Your task to perform on an android device: turn pop-ups on in chrome Image 0: 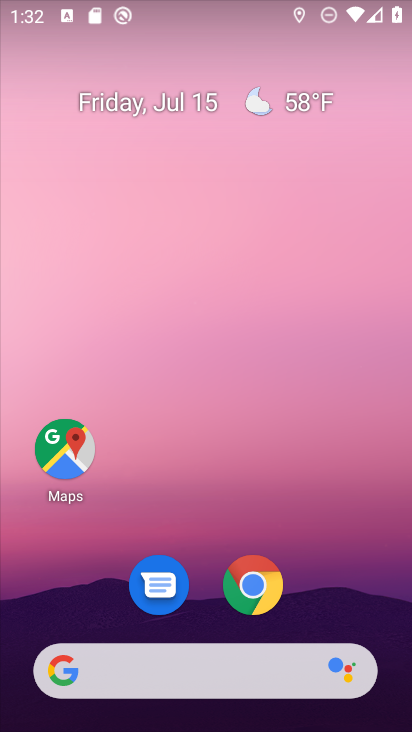
Step 0: click (270, 585)
Your task to perform on an android device: turn pop-ups on in chrome Image 1: 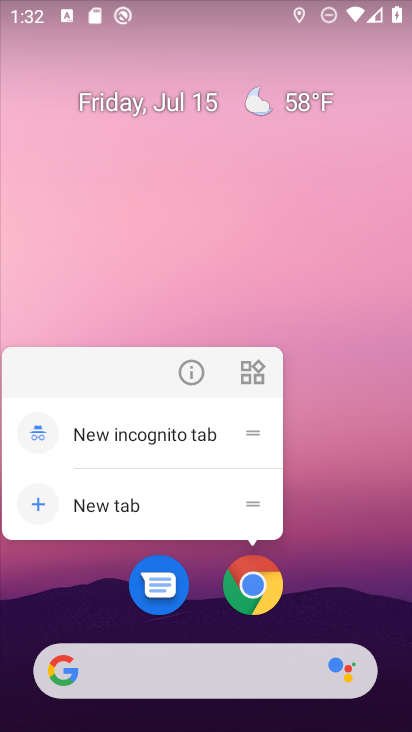
Step 1: click (273, 577)
Your task to perform on an android device: turn pop-ups on in chrome Image 2: 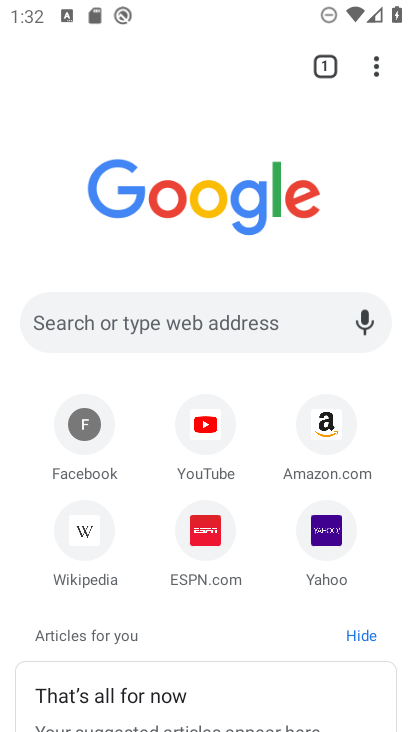
Step 2: click (369, 68)
Your task to perform on an android device: turn pop-ups on in chrome Image 3: 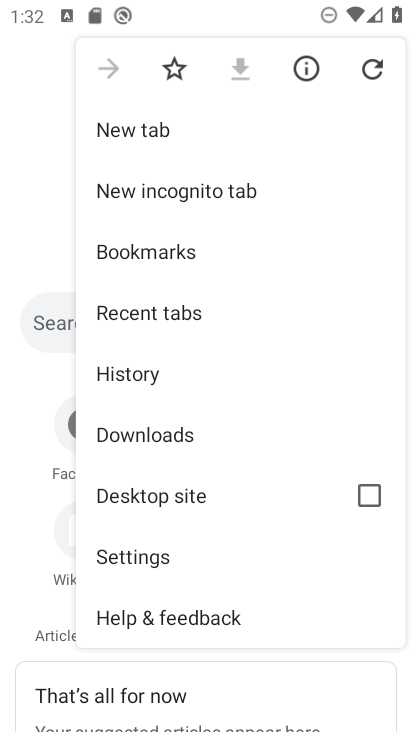
Step 3: click (160, 555)
Your task to perform on an android device: turn pop-ups on in chrome Image 4: 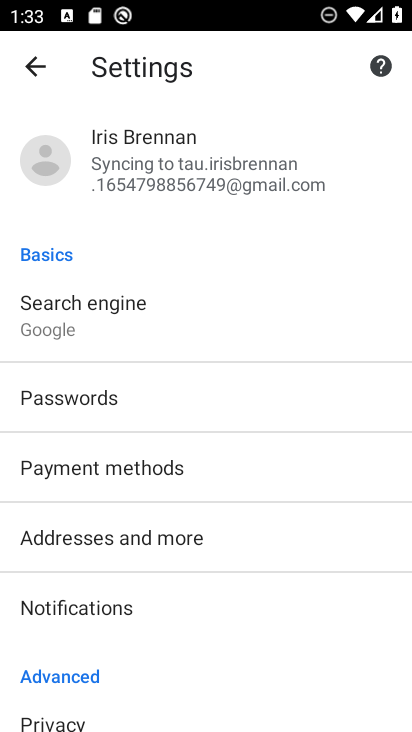
Step 4: drag from (190, 593) to (255, 306)
Your task to perform on an android device: turn pop-ups on in chrome Image 5: 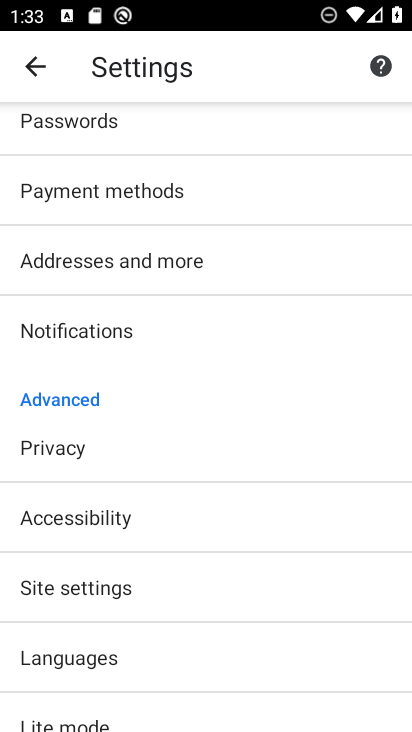
Step 5: click (135, 581)
Your task to perform on an android device: turn pop-ups on in chrome Image 6: 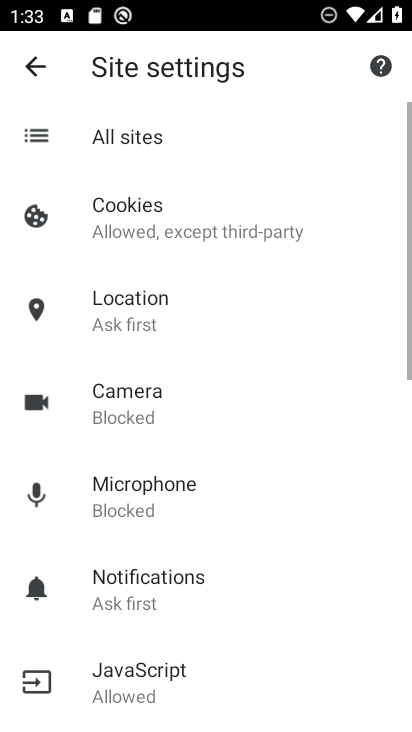
Step 6: drag from (231, 554) to (270, 419)
Your task to perform on an android device: turn pop-ups on in chrome Image 7: 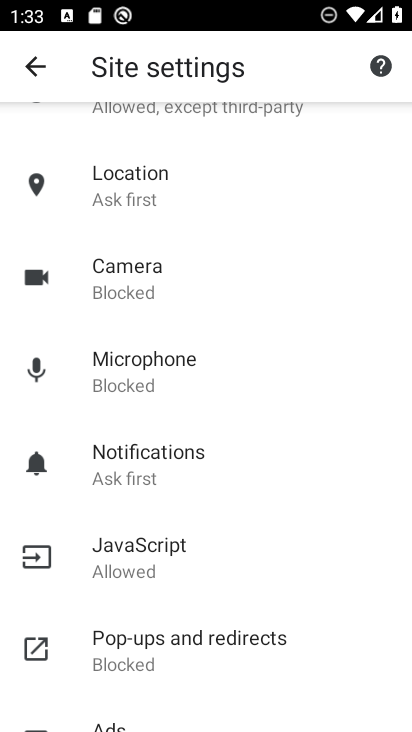
Step 7: click (252, 646)
Your task to perform on an android device: turn pop-ups on in chrome Image 8: 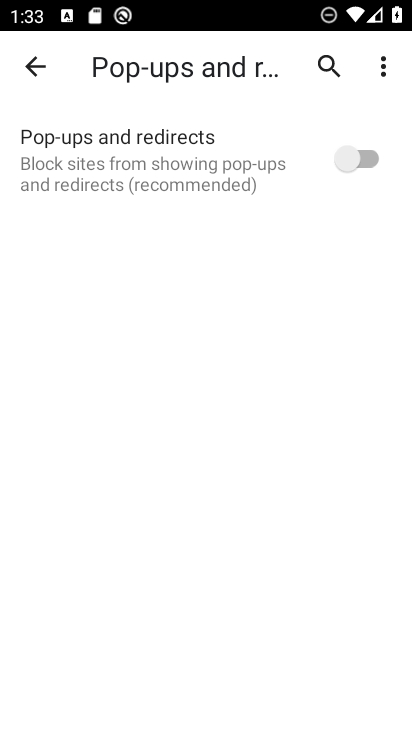
Step 8: click (355, 149)
Your task to perform on an android device: turn pop-ups on in chrome Image 9: 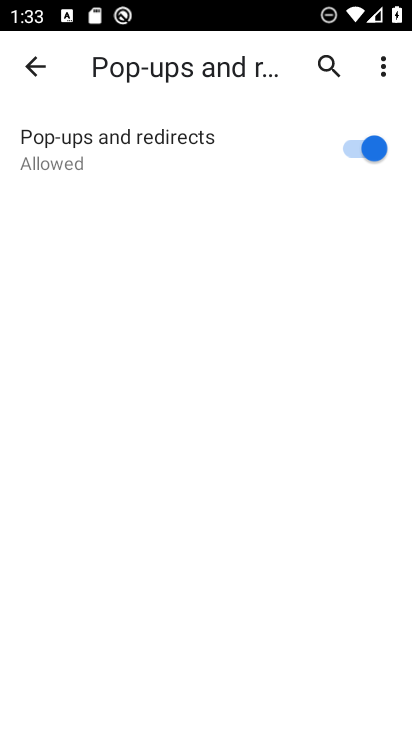
Step 9: task complete